Your task to perform on an android device: toggle priority inbox in the gmail app Image 0: 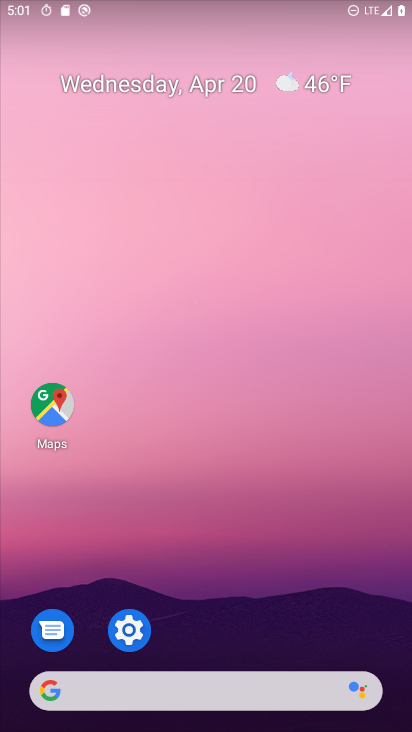
Step 0: drag from (246, 664) to (254, 87)
Your task to perform on an android device: toggle priority inbox in the gmail app Image 1: 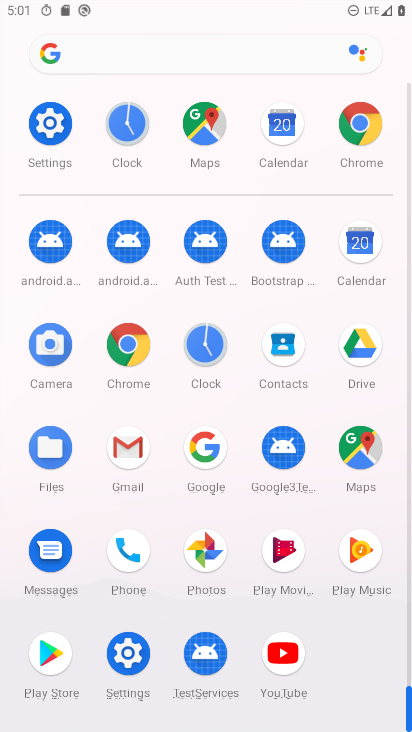
Step 1: click (124, 438)
Your task to perform on an android device: toggle priority inbox in the gmail app Image 2: 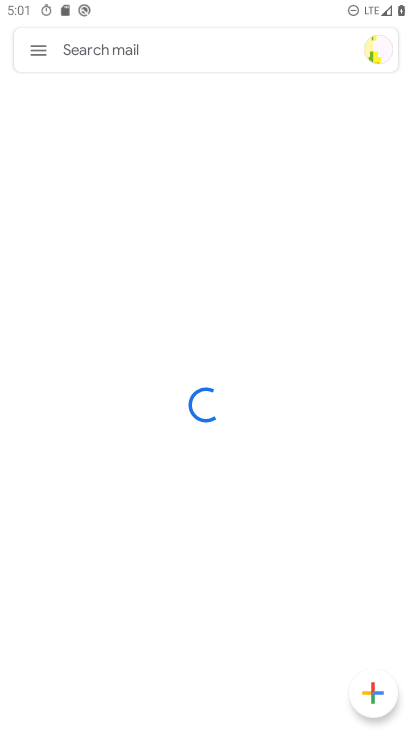
Step 2: click (40, 56)
Your task to perform on an android device: toggle priority inbox in the gmail app Image 3: 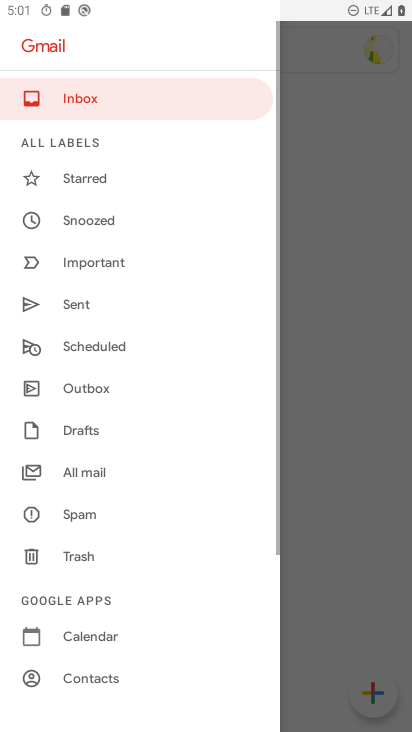
Step 3: drag from (128, 693) to (199, 231)
Your task to perform on an android device: toggle priority inbox in the gmail app Image 4: 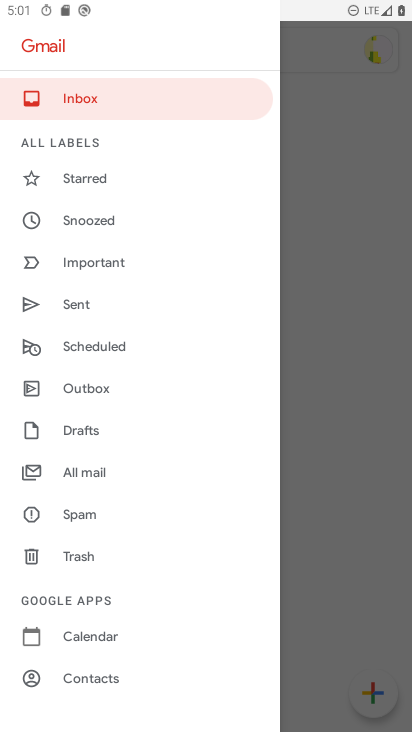
Step 4: drag from (107, 659) to (61, 237)
Your task to perform on an android device: toggle priority inbox in the gmail app Image 5: 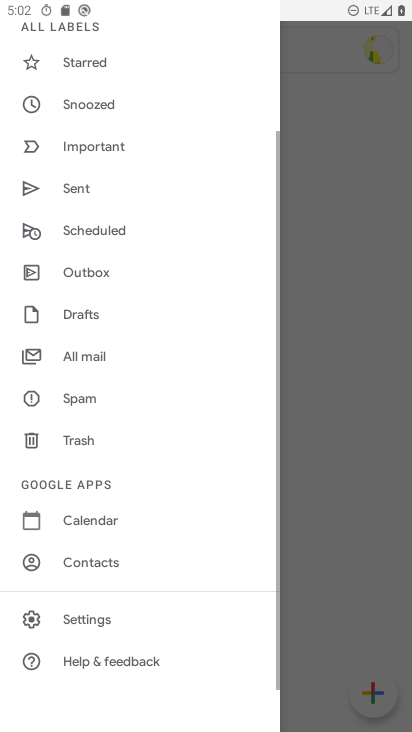
Step 5: click (110, 634)
Your task to perform on an android device: toggle priority inbox in the gmail app Image 6: 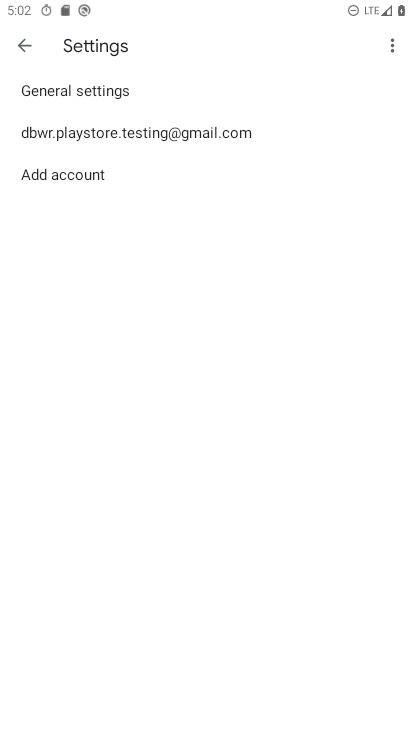
Step 6: click (174, 141)
Your task to perform on an android device: toggle priority inbox in the gmail app Image 7: 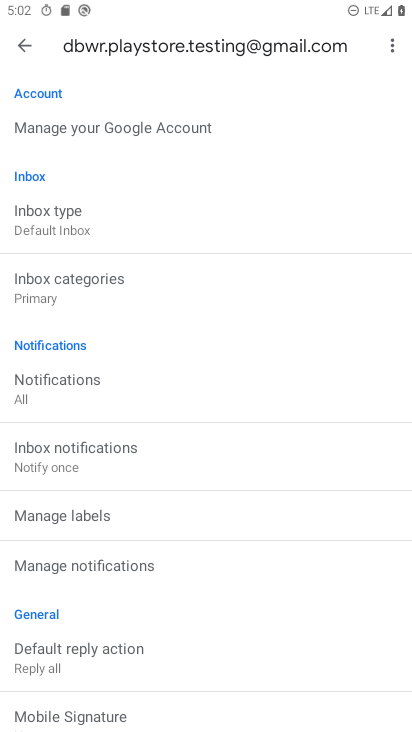
Step 7: click (89, 284)
Your task to perform on an android device: toggle priority inbox in the gmail app Image 8: 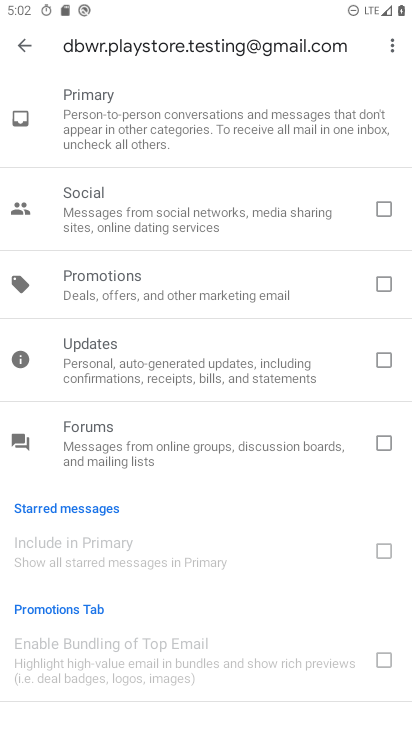
Step 8: drag from (201, 203) to (219, 548)
Your task to perform on an android device: toggle priority inbox in the gmail app Image 9: 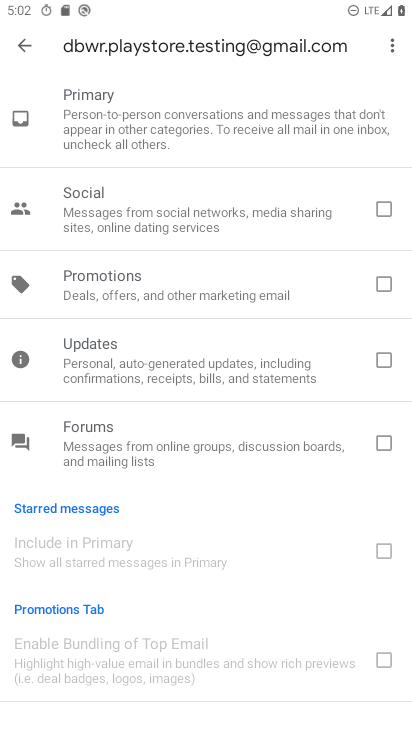
Step 9: press back button
Your task to perform on an android device: toggle priority inbox in the gmail app Image 10: 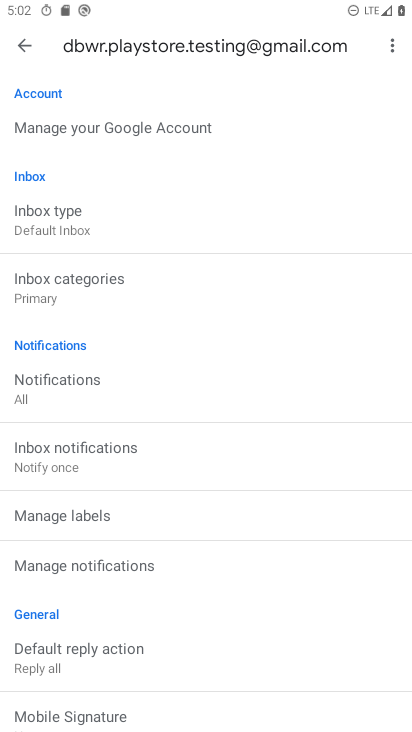
Step 10: click (74, 217)
Your task to perform on an android device: toggle priority inbox in the gmail app Image 11: 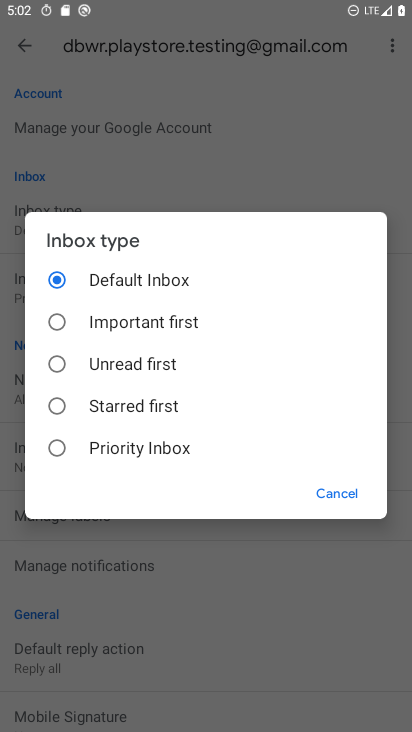
Step 11: click (125, 447)
Your task to perform on an android device: toggle priority inbox in the gmail app Image 12: 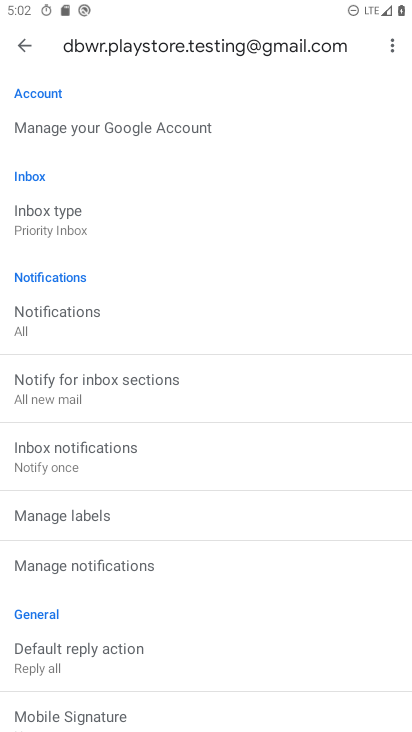
Step 12: click (60, 203)
Your task to perform on an android device: toggle priority inbox in the gmail app Image 13: 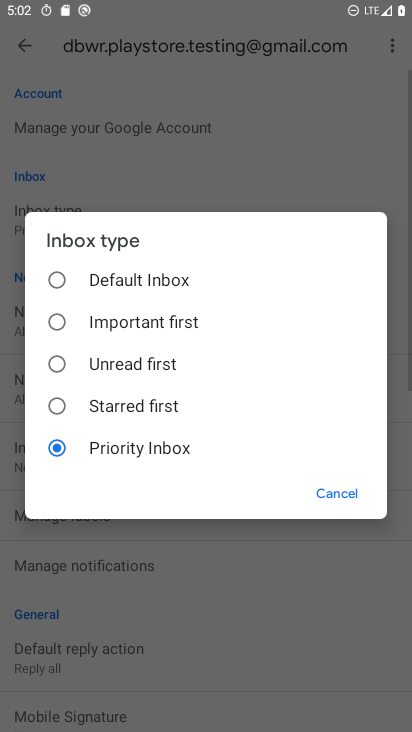
Step 13: click (121, 448)
Your task to perform on an android device: toggle priority inbox in the gmail app Image 14: 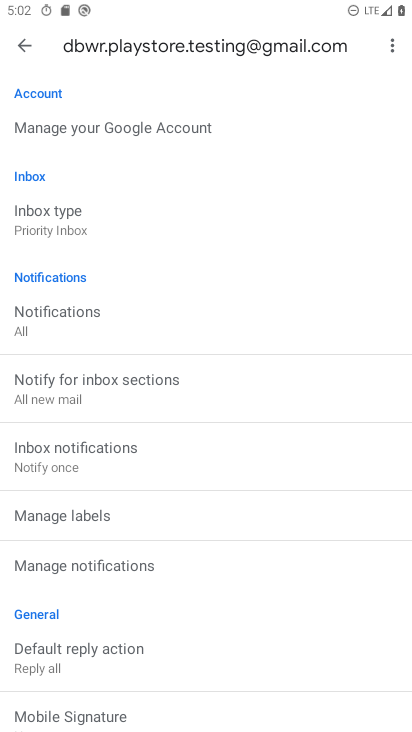
Step 14: task complete